Your task to perform on an android device: Open Yahoo.com Image 0: 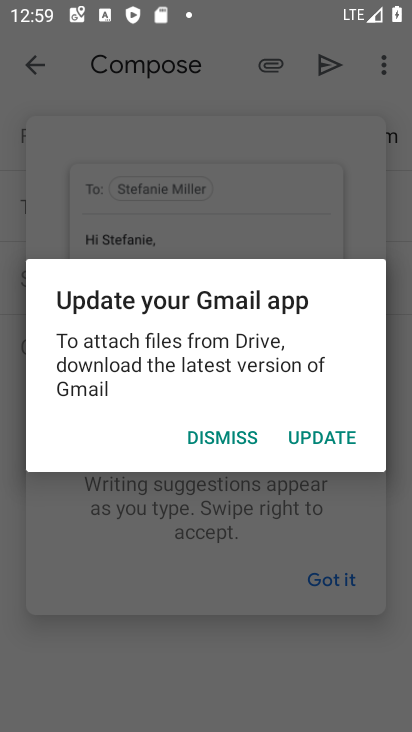
Step 0: press home button
Your task to perform on an android device: Open Yahoo.com Image 1: 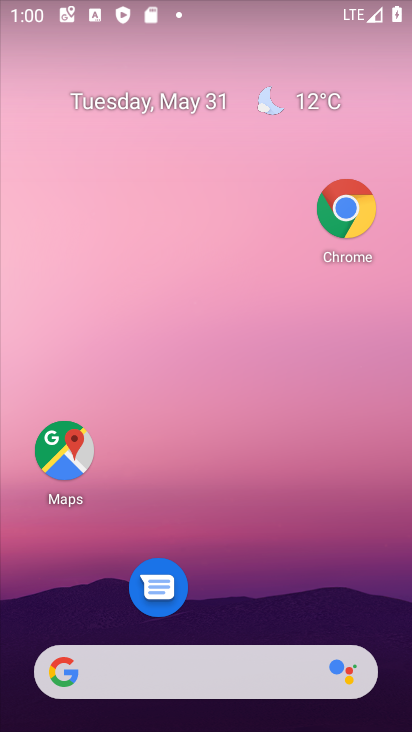
Step 1: click (164, 663)
Your task to perform on an android device: Open Yahoo.com Image 2: 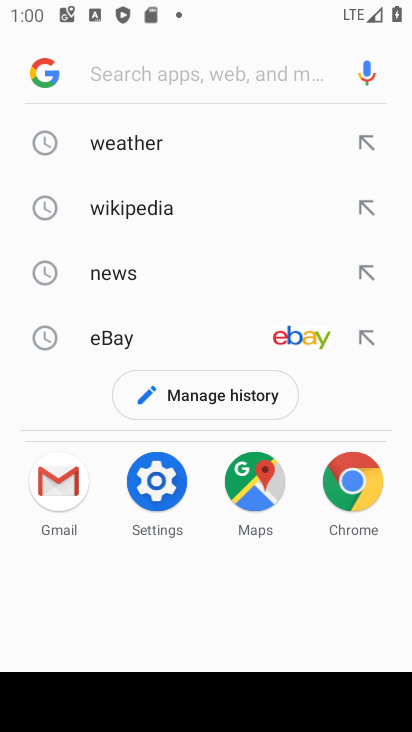
Step 2: click (55, 85)
Your task to perform on an android device: Open Yahoo.com Image 3: 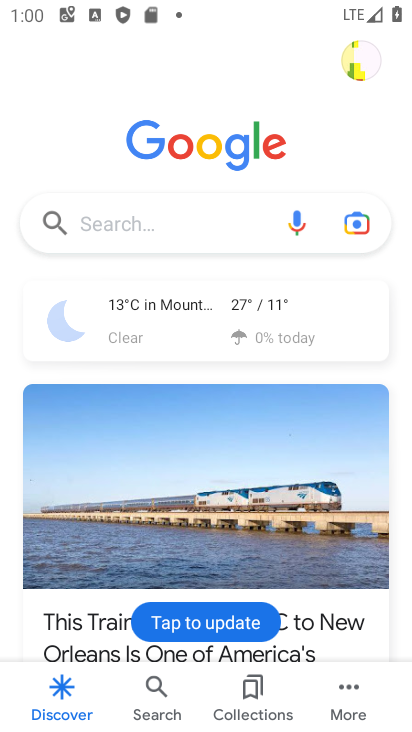
Step 3: click (139, 209)
Your task to perform on an android device: Open Yahoo.com Image 4: 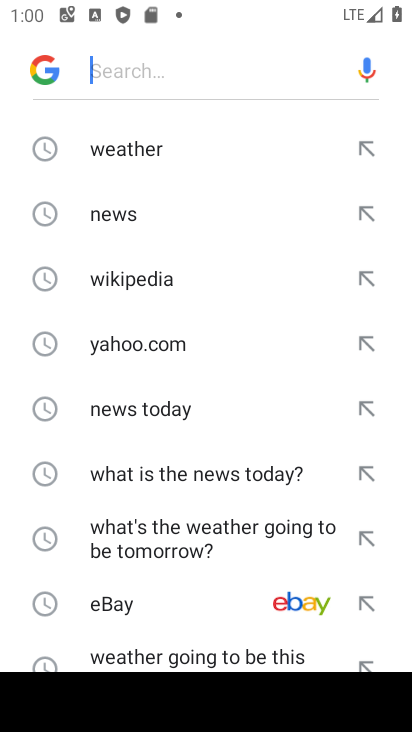
Step 4: click (110, 357)
Your task to perform on an android device: Open Yahoo.com Image 5: 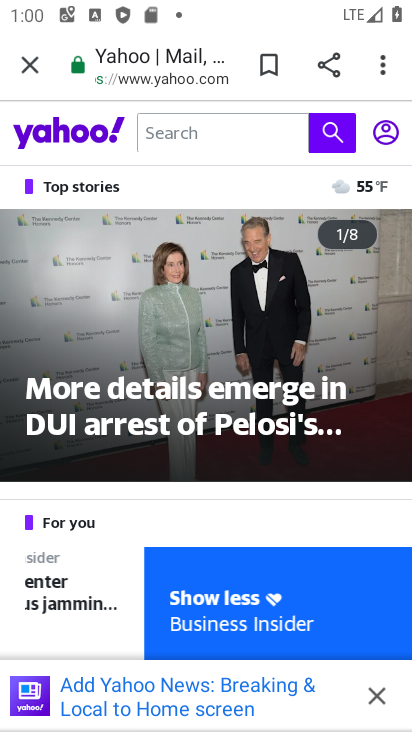
Step 5: task complete